Your task to perform on an android device: uninstall "Contacts" Image 0: 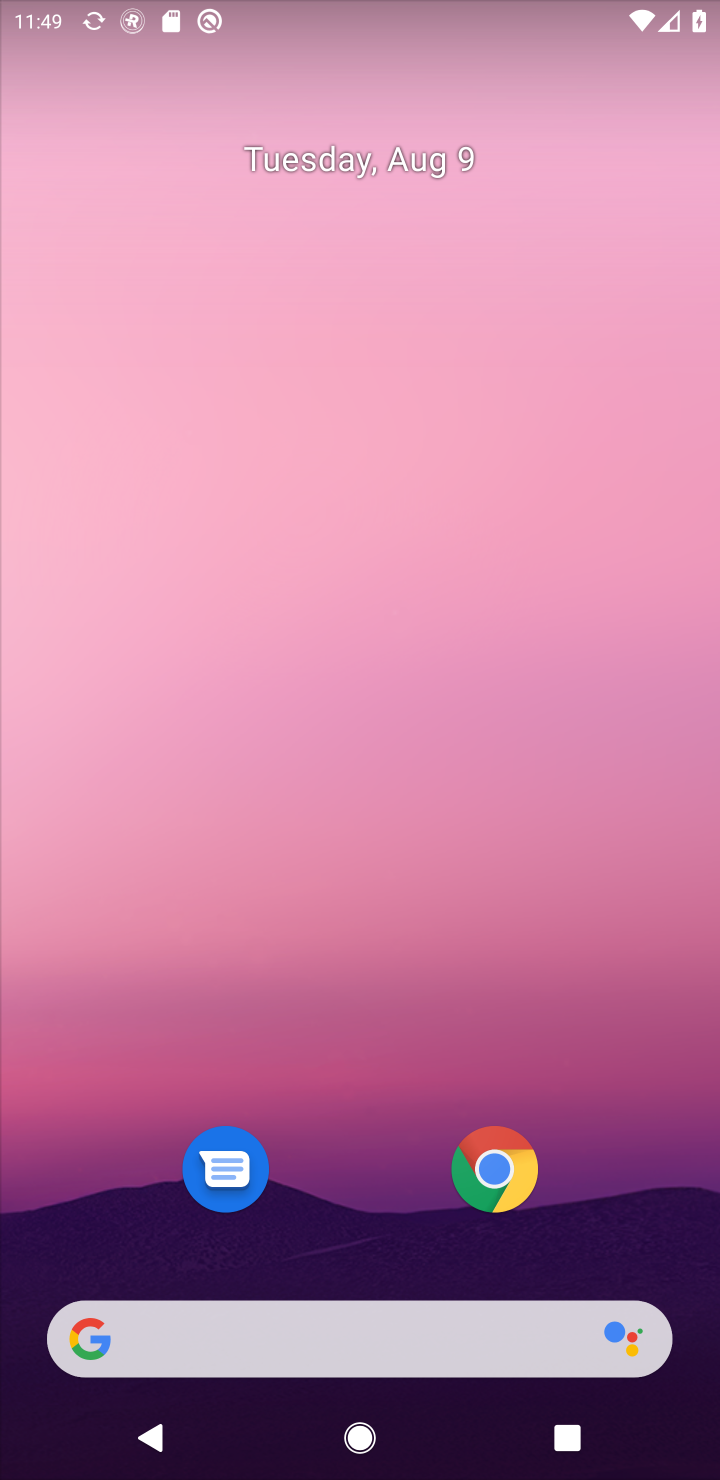
Step 0: press home button
Your task to perform on an android device: uninstall "Contacts" Image 1: 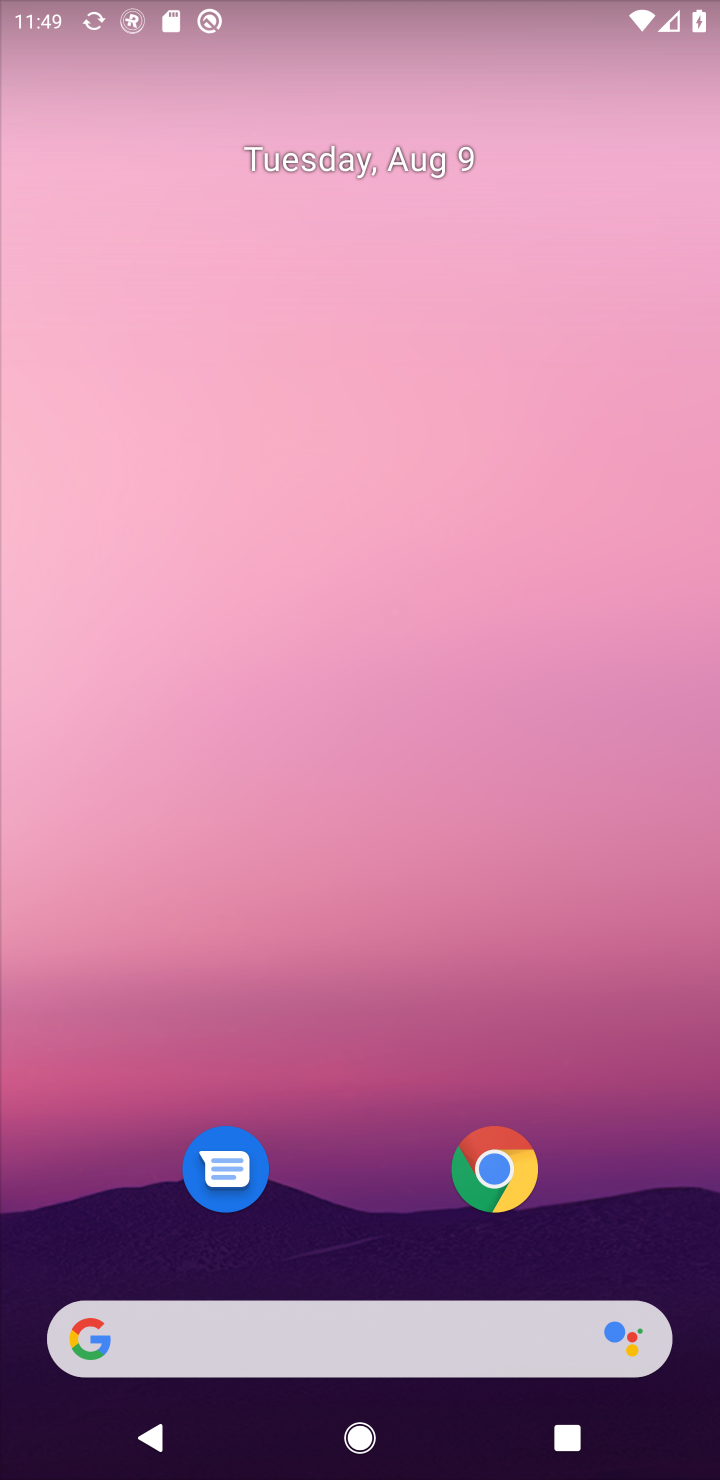
Step 1: drag from (615, 990) to (630, 101)
Your task to perform on an android device: uninstall "Contacts" Image 2: 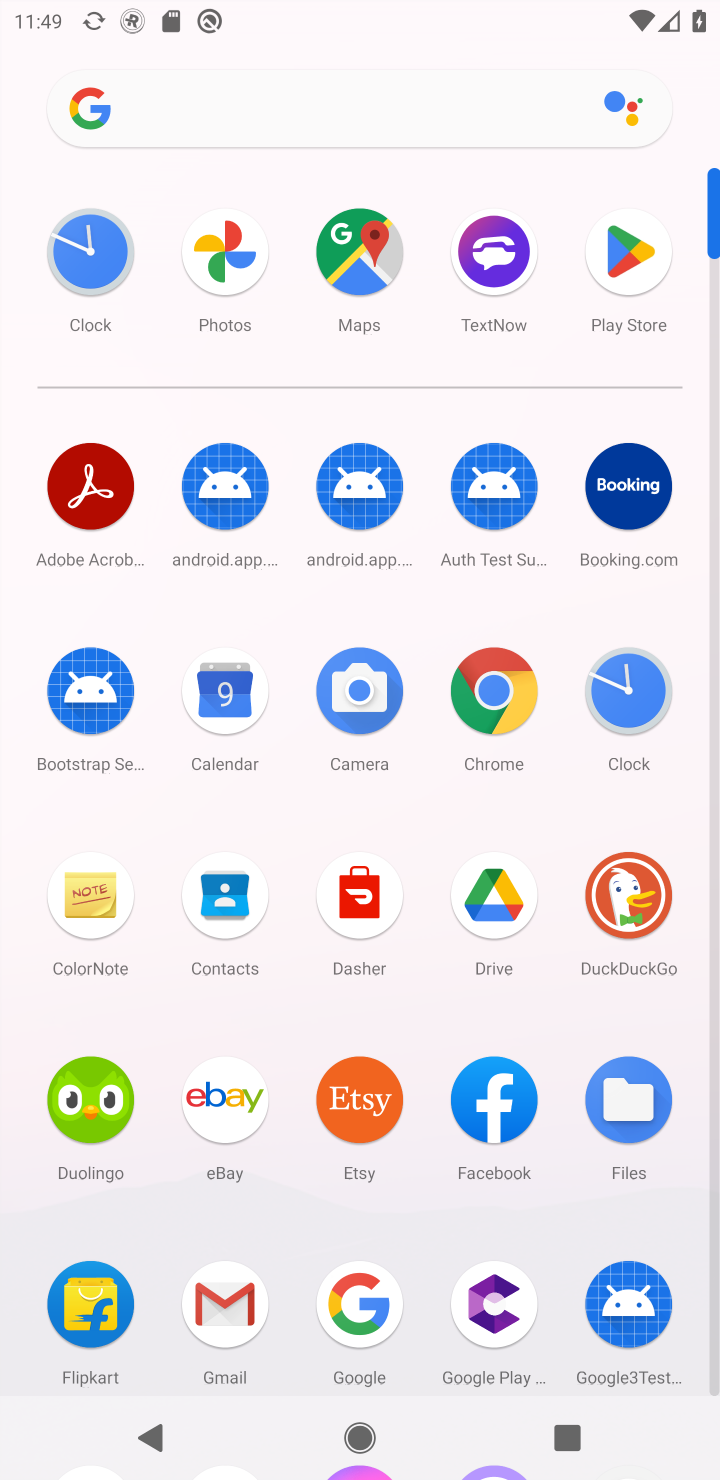
Step 2: click (628, 250)
Your task to perform on an android device: uninstall "Contacts" Image 3: 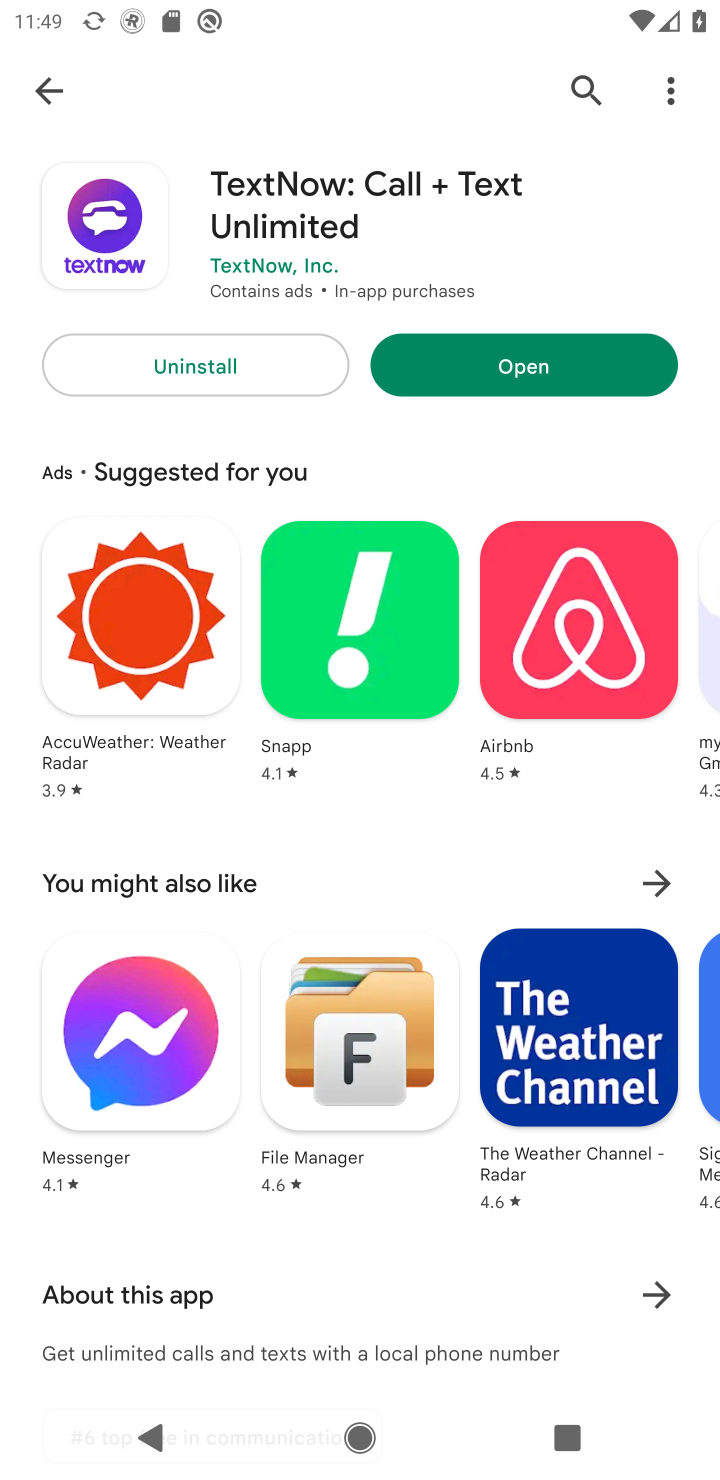
Step 3: click (587, 80)
Your task to perform on an android device: uninstall "Contacts" Image 4: 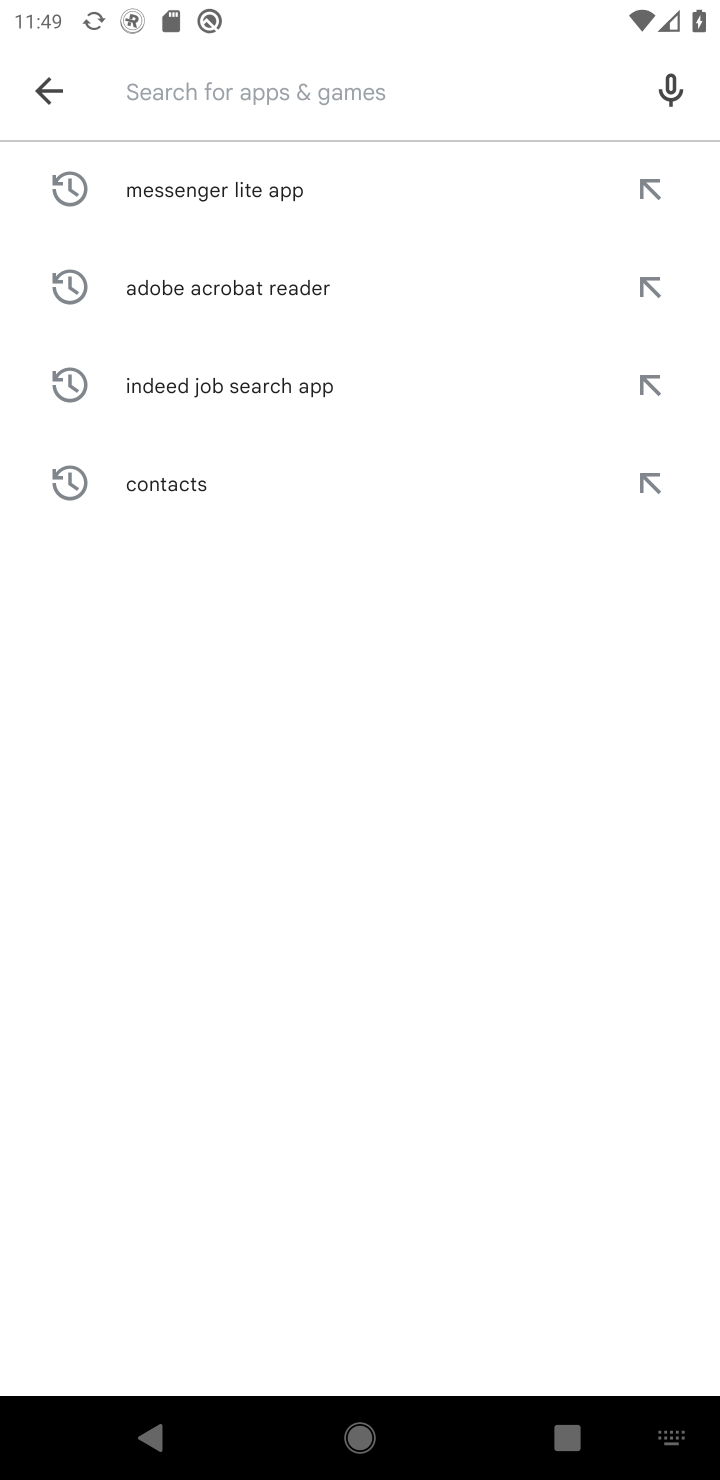
Step 4: type "contyats"
Your task to perform on an android device: uninstall "Contacts" Image 5: 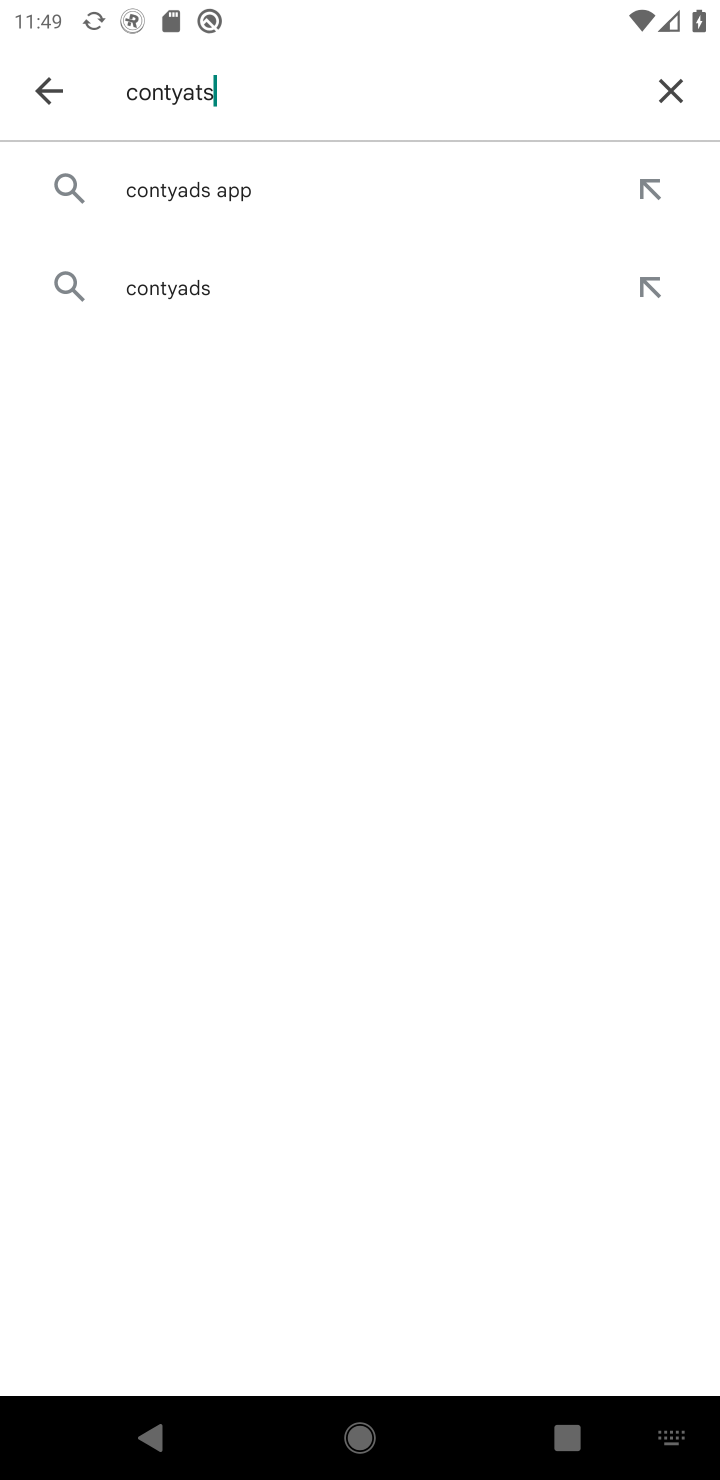
Step 5: click (249, 176)
Your task to perform on an android device: uninstall "Contacts" Image 6: 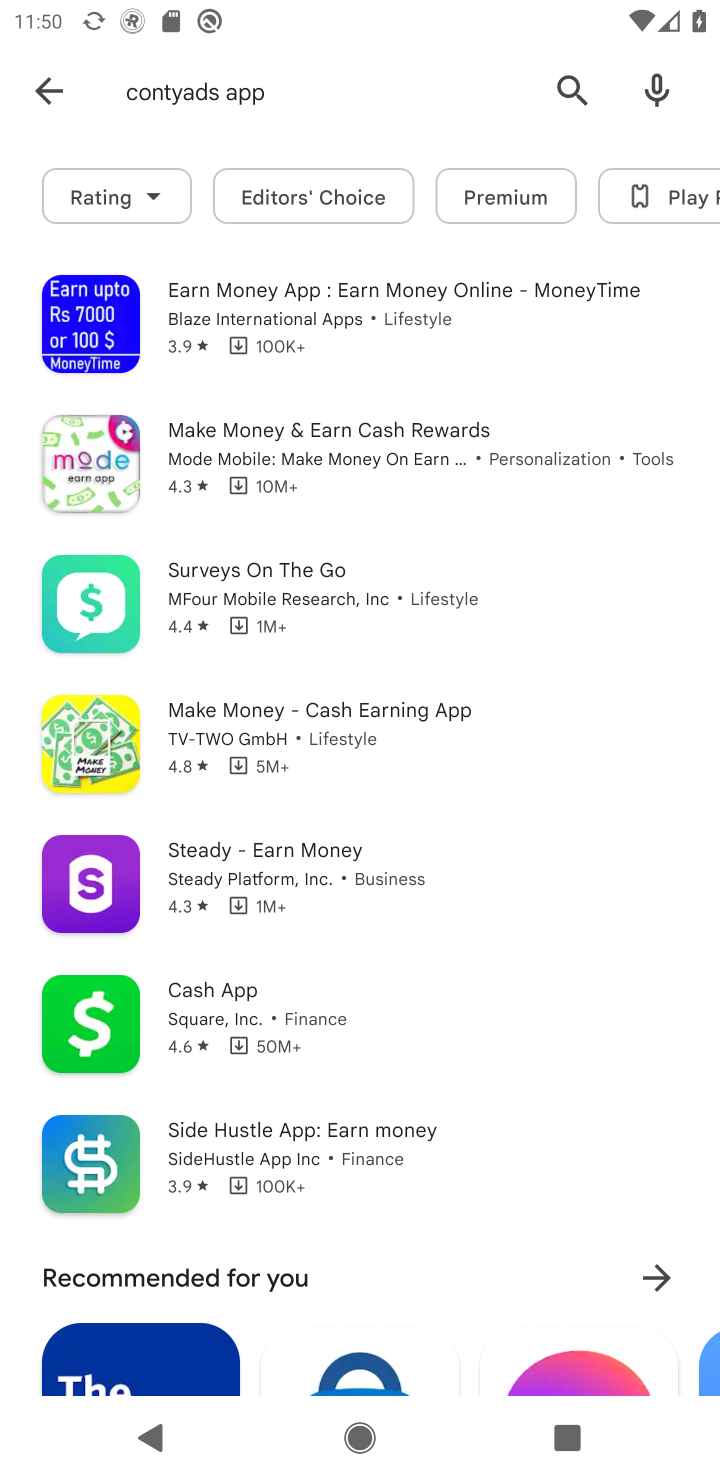
Step 6: click (566, 85)
Your task to perform on an android device: uninstall "Contacts" Image 7: 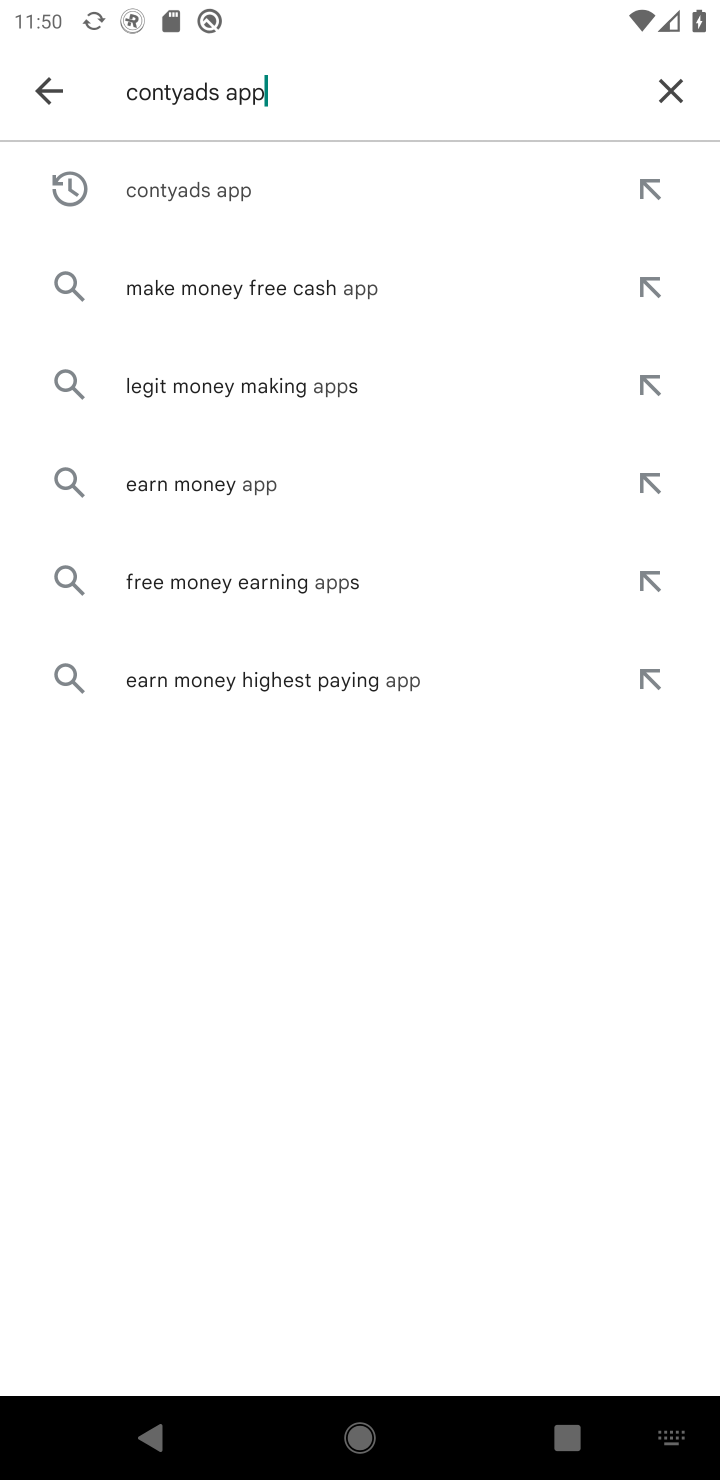
Step 7: click (670, 88)
Your task to perform on an android device: uninstall "Contacts" Image 8: 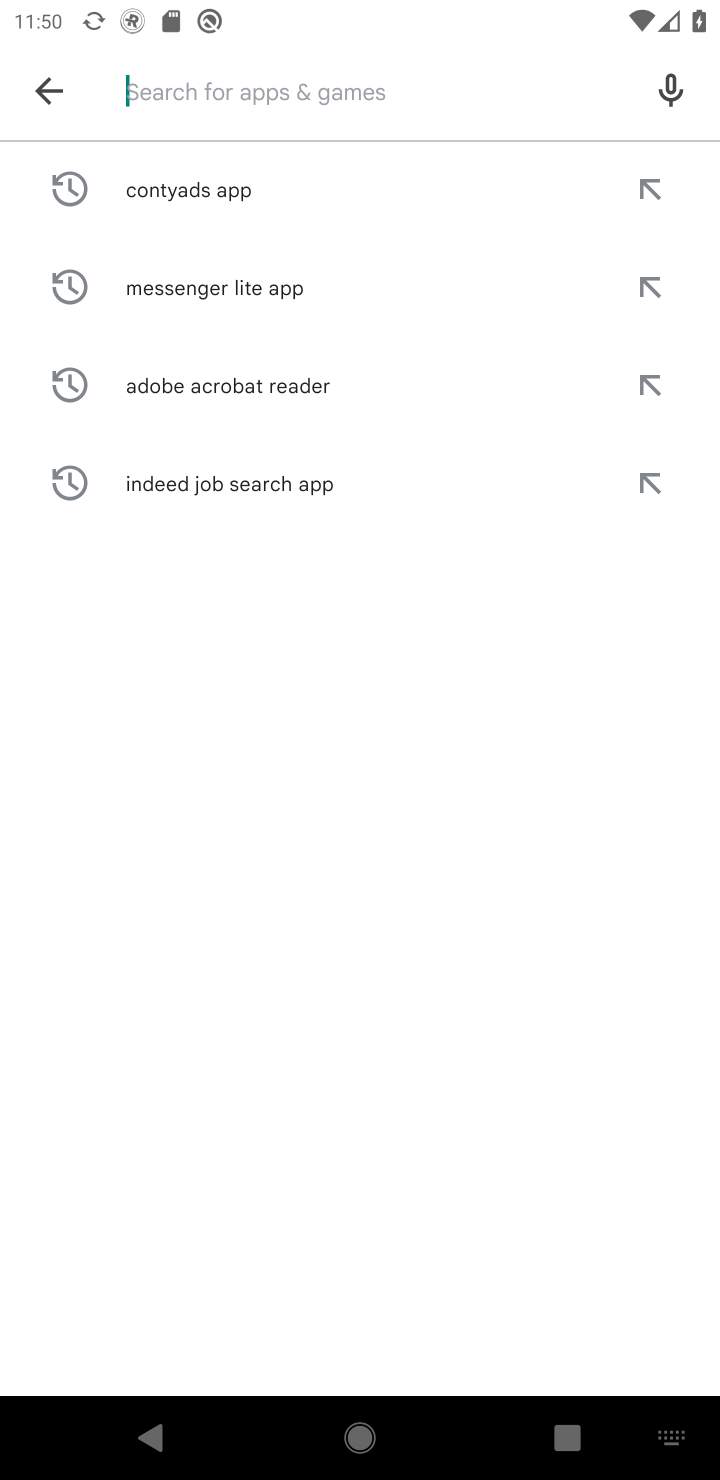
Step 8: press enter
Your task to perform on an android device: uninstall "Contacts" Image 9: 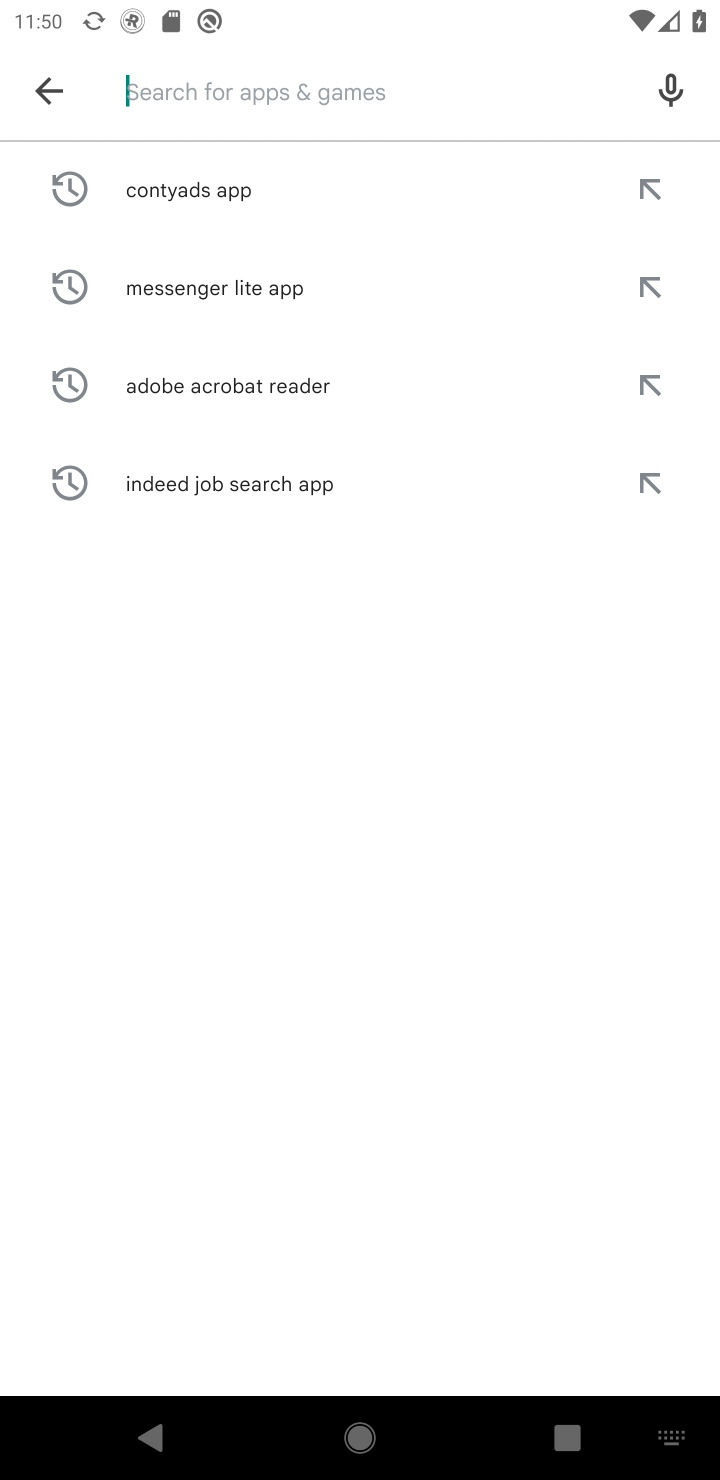
Step 9: type "contacts"
Your task to perform on an android device: uninstall "Contacts" Image 10: 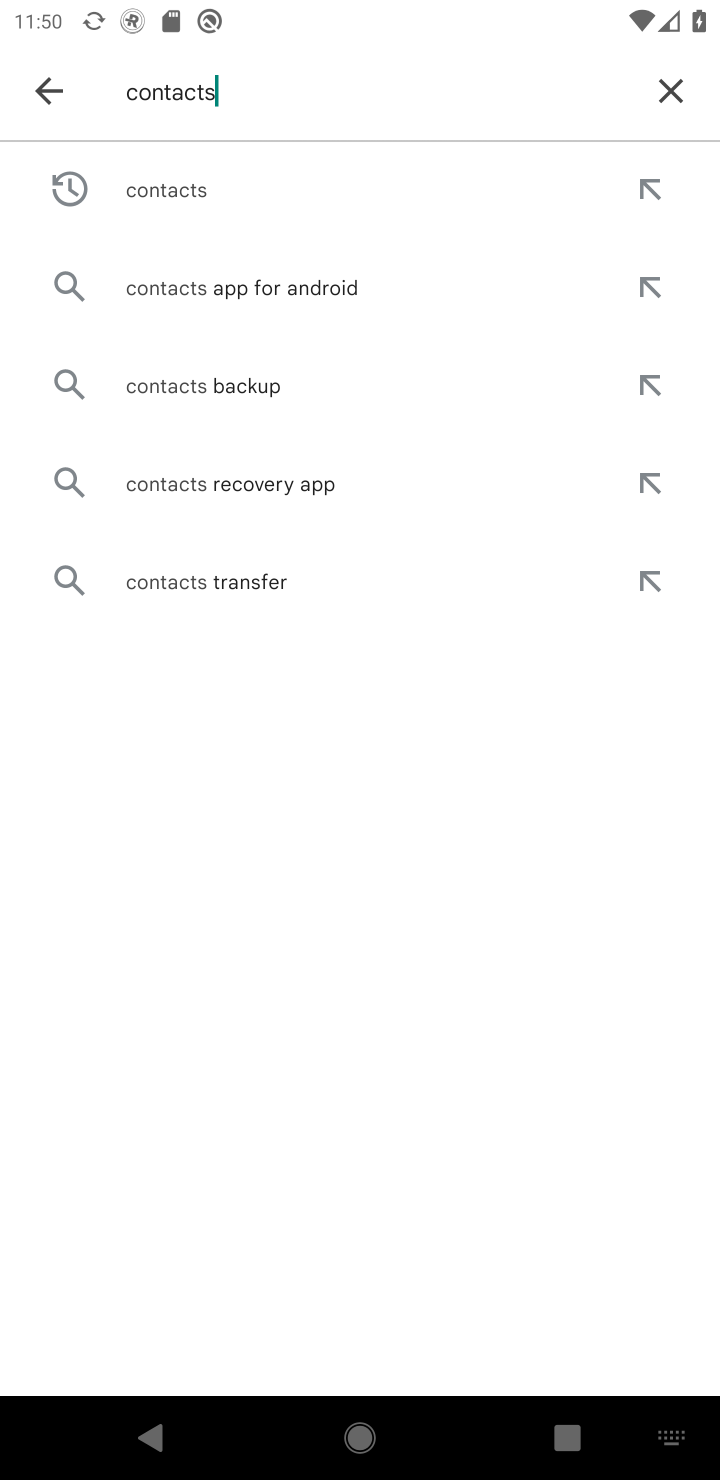
Step 10: click (224, 189)
Your task to perform on an android device: uninstall "Contacts" Image 11: 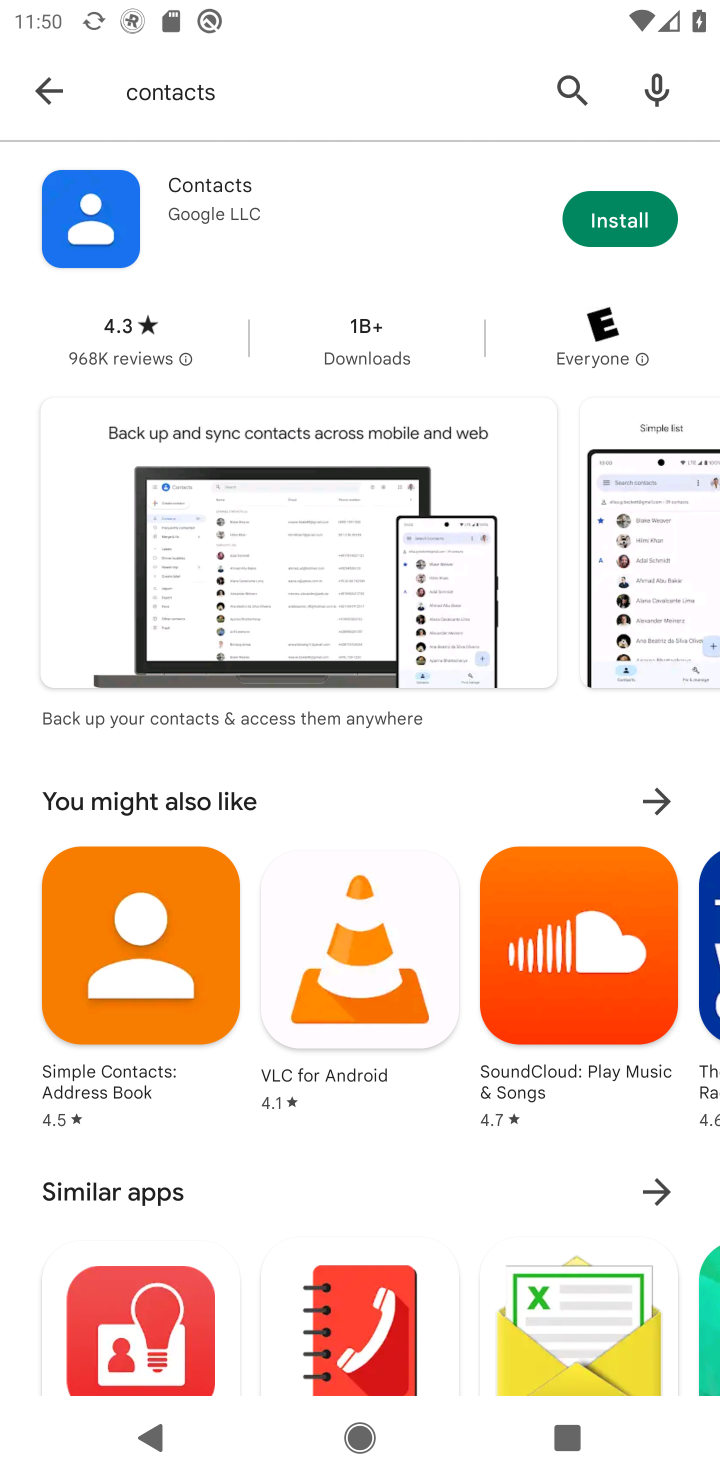
Step 11: task complete